Your task to perform on an android device: Go to Amazon Image 0: 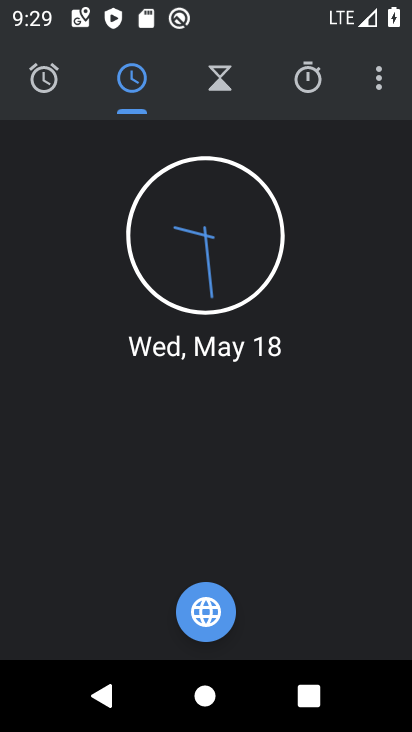
Step 0: press home button
Your task to perform on an android device: Go to Amazon Image 1: 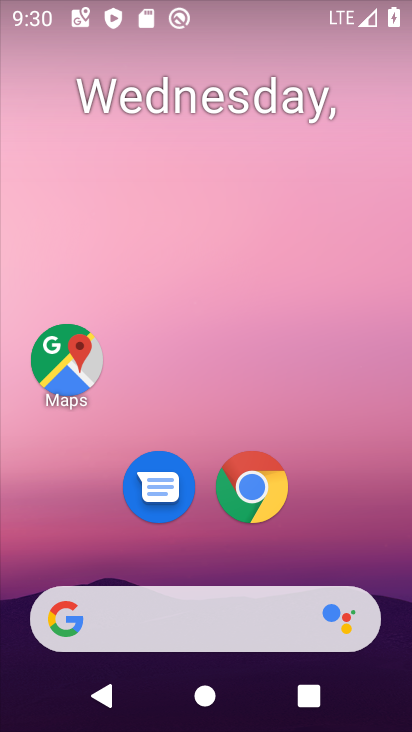
Step 1: click (257, 493)
Your task to perform on an android device: Go to Amazon Image 2: 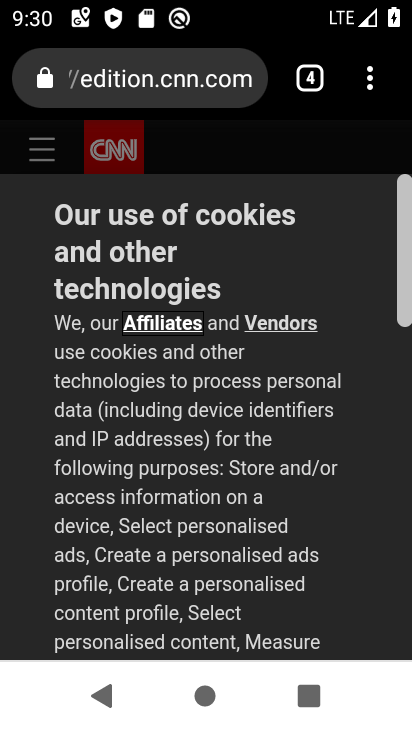
Step 2: click (368, 82)
Your task to perform on an android device: Go to Amazon Image 3: 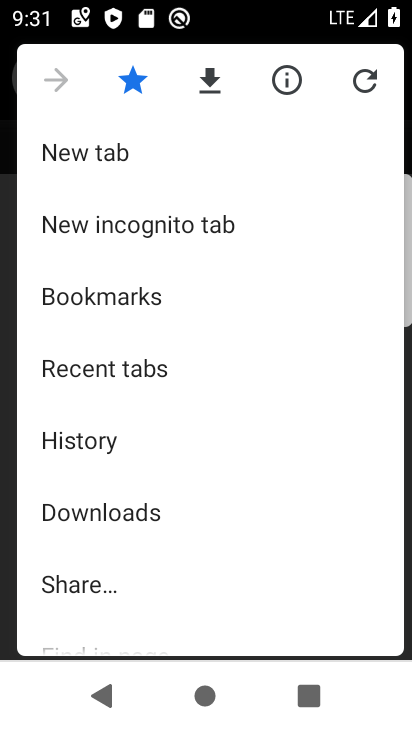
Step 3: click (120, 153)
Your task to perform on an android device: Go to Amazon Image 4: 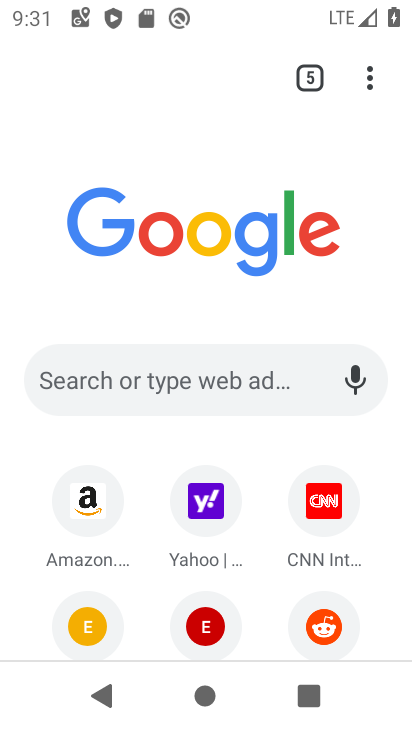
Step 4: click (82, 509)
Your task to perform on an android device: Go to Amazon Image 5: 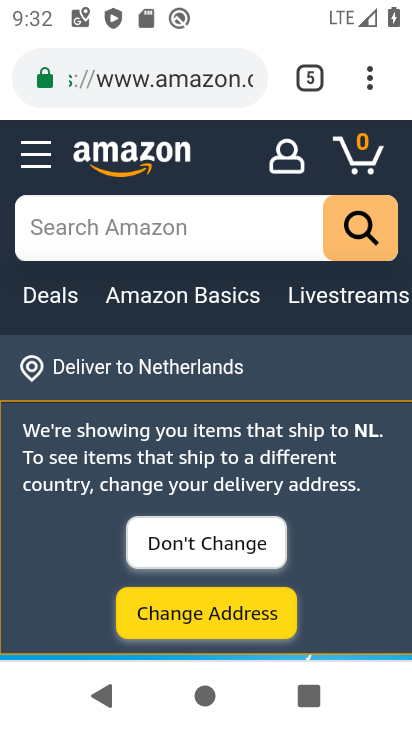
Step 5: task complete